Your task to perform on an android device: Go to Google maps Image 0: 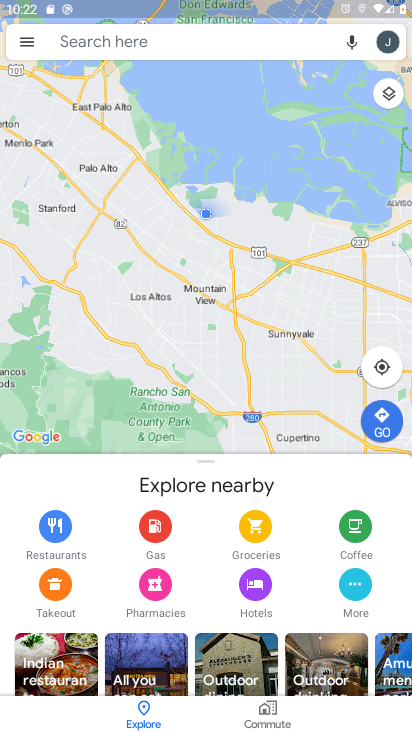
Step 0: drag from (204, 552) to (220, 377)
Your task to perform on an android device: Go to Google maps Image 1: 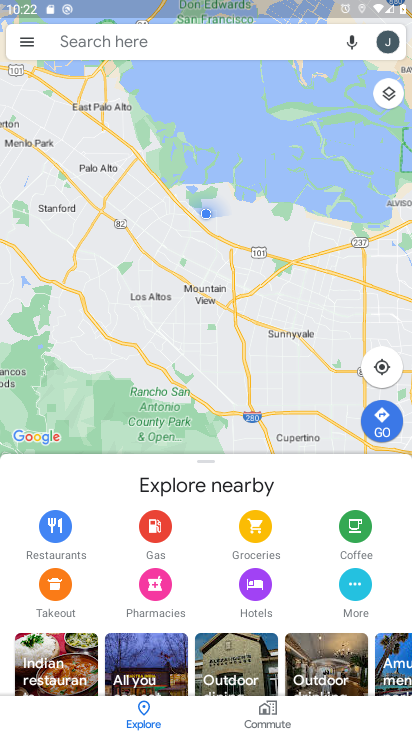
Step 1: task complete